Your task to perform on an android device: toggle improve location accuracy Image 0: 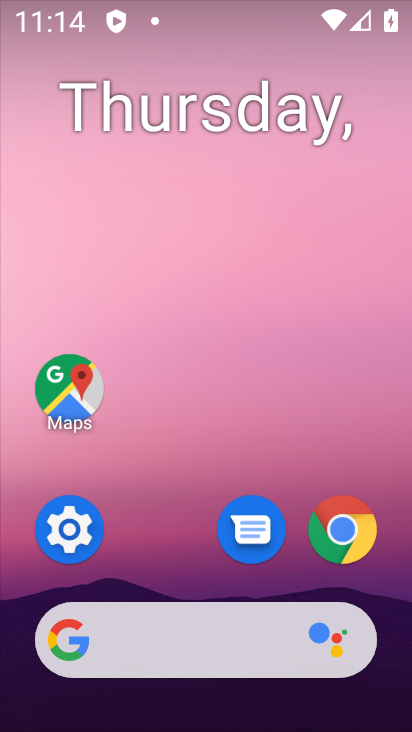
Step 0: click (71, 532)
Your task to perform on an android device: toggle improve location accuracy Image 1: 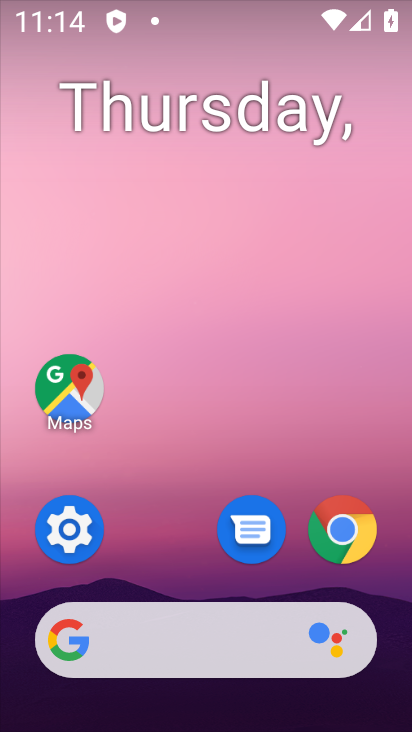
Step 1: click (71, 532)
Your task to perform on an android device: toggle improve location accuracy Image 2: 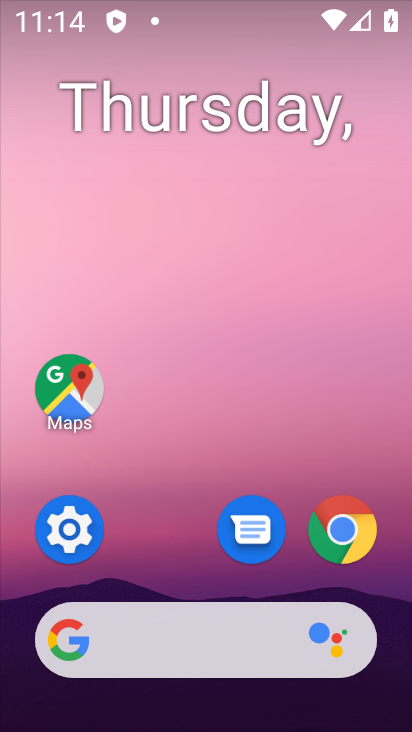
Step 2: click (71, 532)
Your task to perform on an android device: toggle improve location accuracy Image 3: 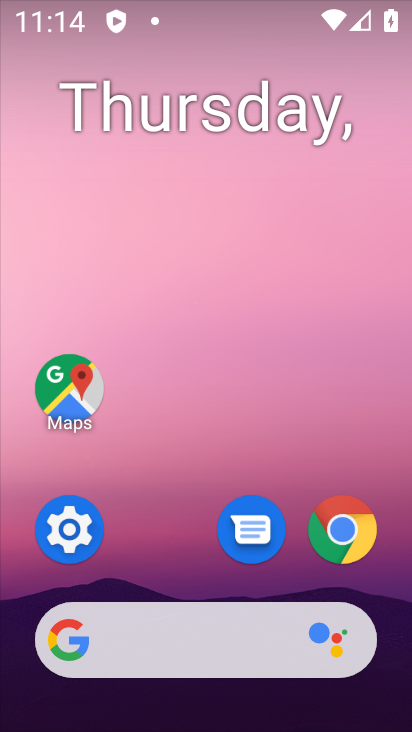
Step 3: click (54, 516)
Your task to perform on an android device: toggle improve location accuracy Image 4: 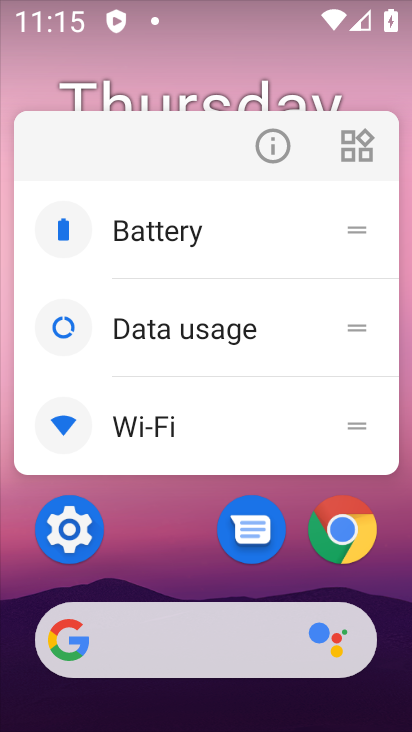
Step 4: click (54, 516)
Your task to perform on an android device: toggle improve location accuracy Image 5: 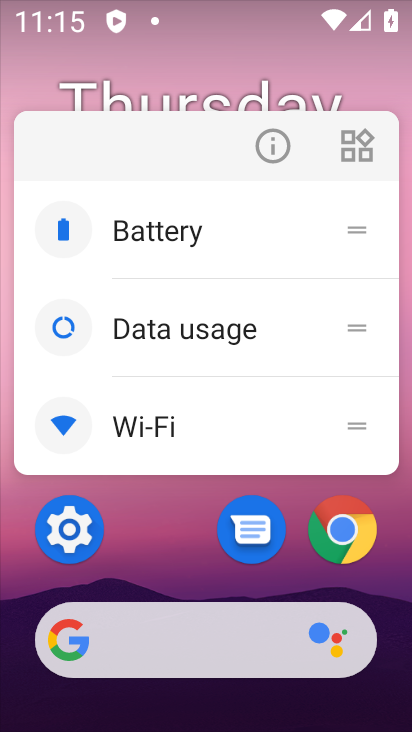
Step 5: click (71, 538)
Your task to perform on an android device: toggle improve location accuracy Image 6: 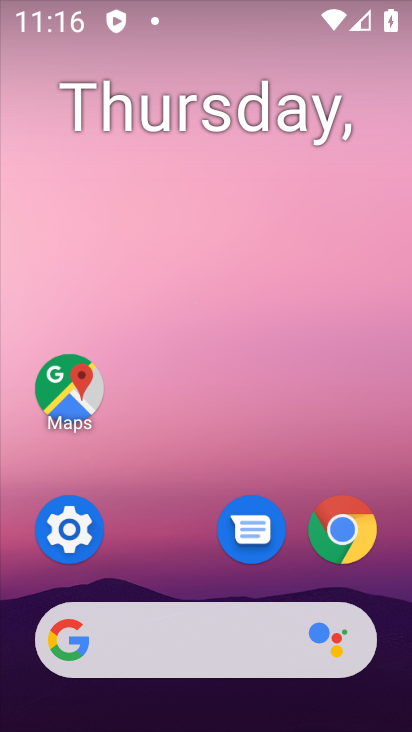
Step 6: click (61, 385)
Your task to perform on an android device: toggle improve location accuracy Image 7: 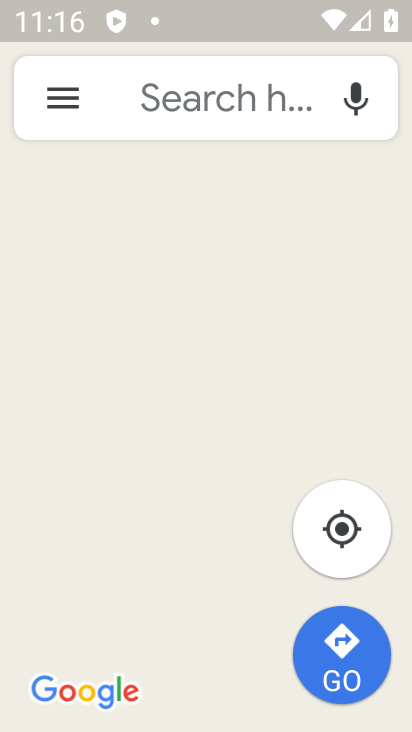
Step 7: click (42, 96)
Your task to perform on an android device: toggle improve location accuracy Image 8: 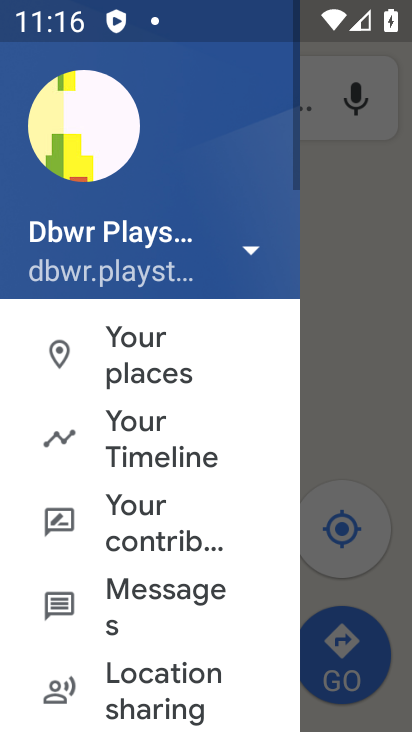
Step 8: drag from (138, 646) to (121, 180)
Your task to perform on an android device: toggle improve location accuracy Image 9: 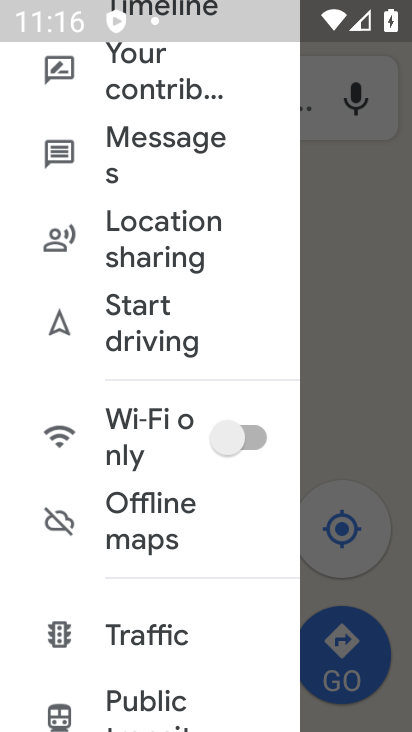
Step 9: drag from (157, 656) to (155, 148)
Your task to perform on an android device: toggle improve location accuracy Image 10: 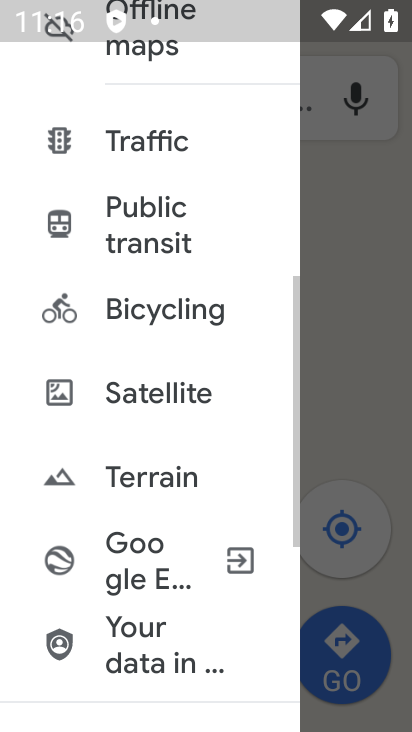
Step 10: drag from (184, 655) to (162, 144)
Your task to perform on an android device: toggle improve location accuracy Image 11: 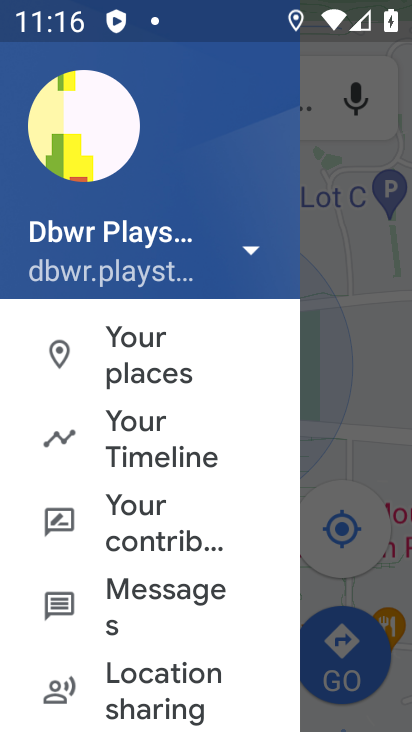
Step 11: drag from (192, 481) to (191, 43)
Your task to perform on an android device: toggle improve location accuracy Image 12: 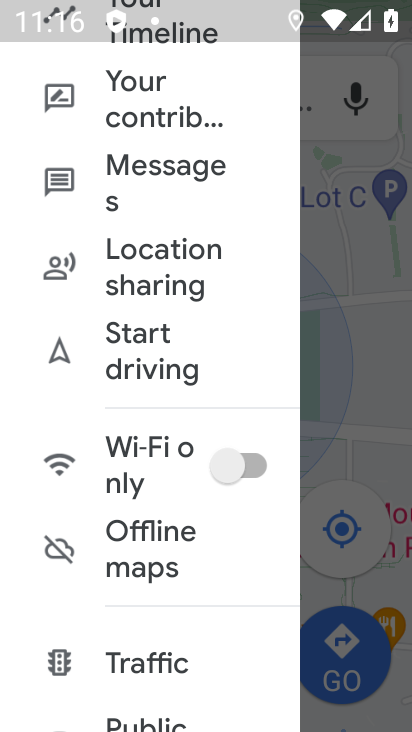
Step 12: drag from (202, 709) to (218, 44)
Your task to perform on an android device: toggle improve location accuracy Image 13: 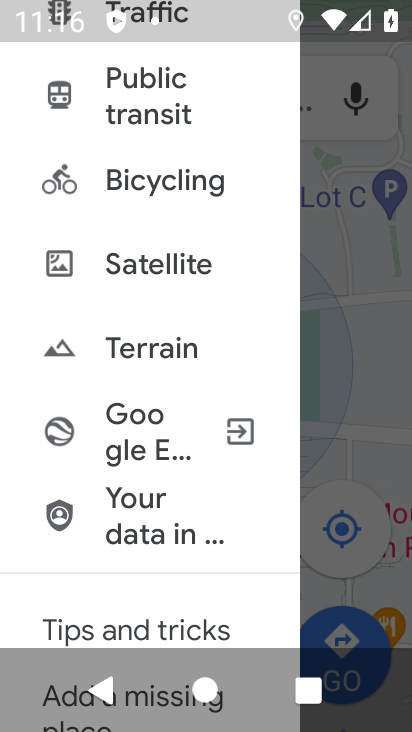
Step 13: drag from (244, 414) to (216, 21)
Your task to perform on an android device: toggle improve location accuracy Image 14: 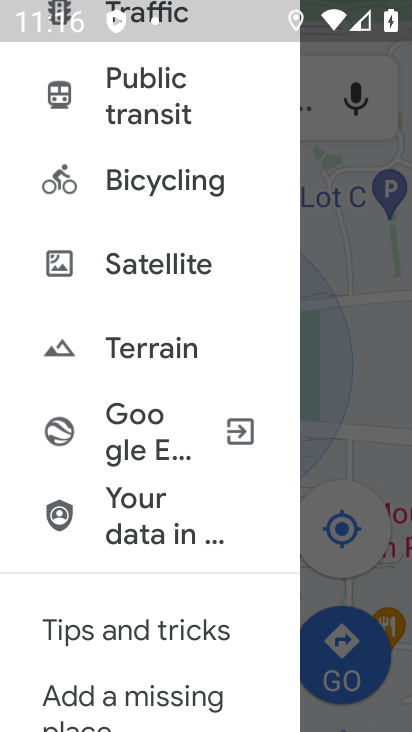
Step 14: drag from (188, 642) to (201, 46)
Your task to perform on an android device: toggle improve location accuracy Image 15: 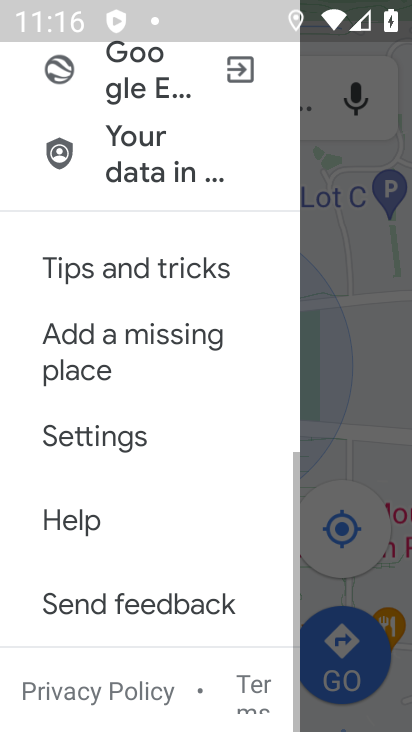
Step 15: click (104, 427)
Your task to perform on an android device: toggle improve location accuracy Image 16: 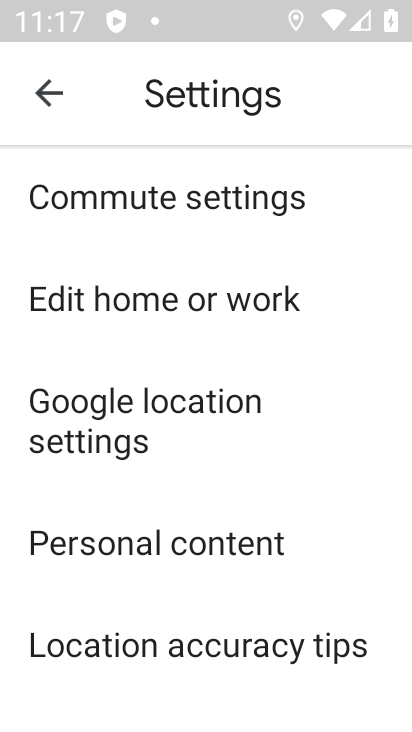
Step 16: click (221, 423)
Your task to perform on an android device: toggle improve location accuracy Image 17: 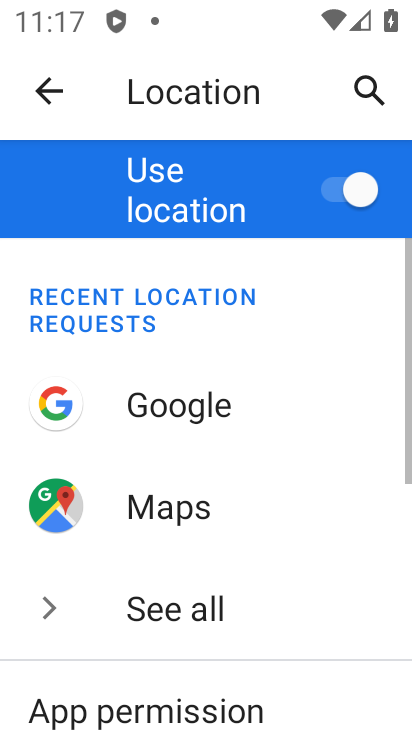
Step 17: drag from (328, 719) to (207, 69)
Your task to perform on an android device: toggle improve location accuracy Image 18: 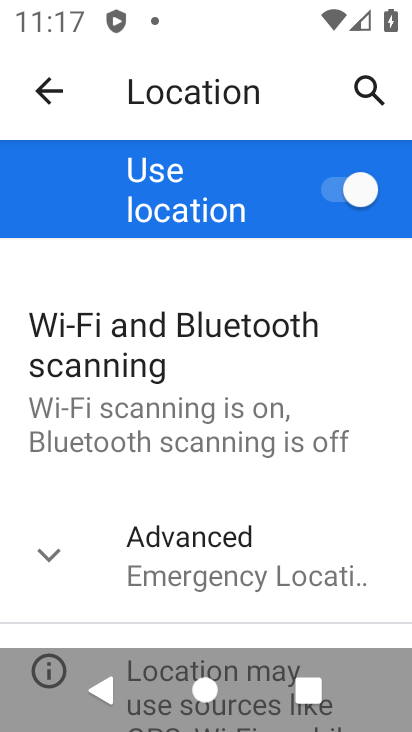
Step 18: click (292, 576)
Your task to perform on an android device: toggle improve location accuracy Image 19: 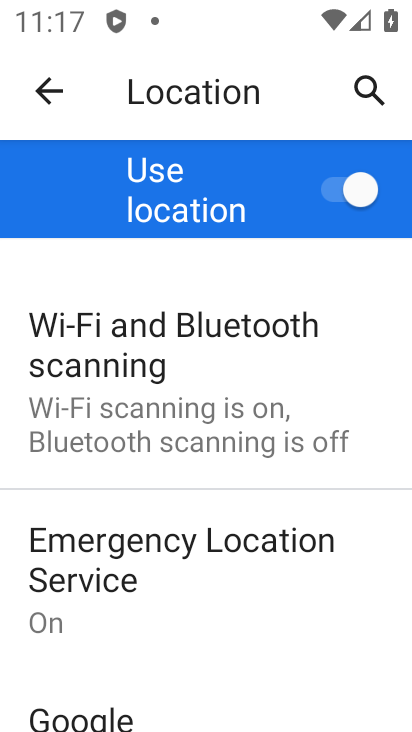
Step 19: drag from (294, 711) to (238, 263)
Your task to perform on an android device: toggle improve location accuracy Image 20: 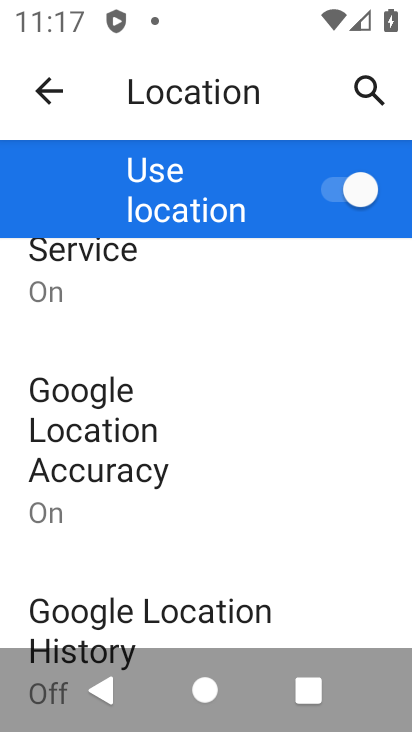
Step 20: click (134, 458)
Your task to perform on an android device: toggle improve location accuracy Image 21: 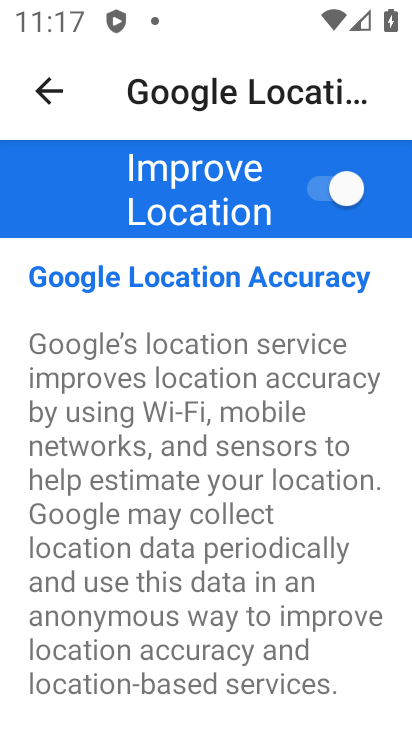
Step 21: click (362, 176)
Your task to perform on an android device: toggle improve location accuracy Image 22: 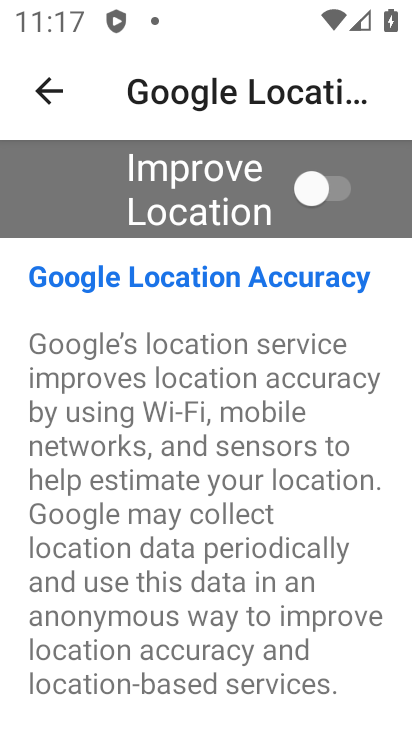
Step 22: task complete